Your task to perform on an android device: uninstall "Spotify: Music and Podcasts" Image 0: 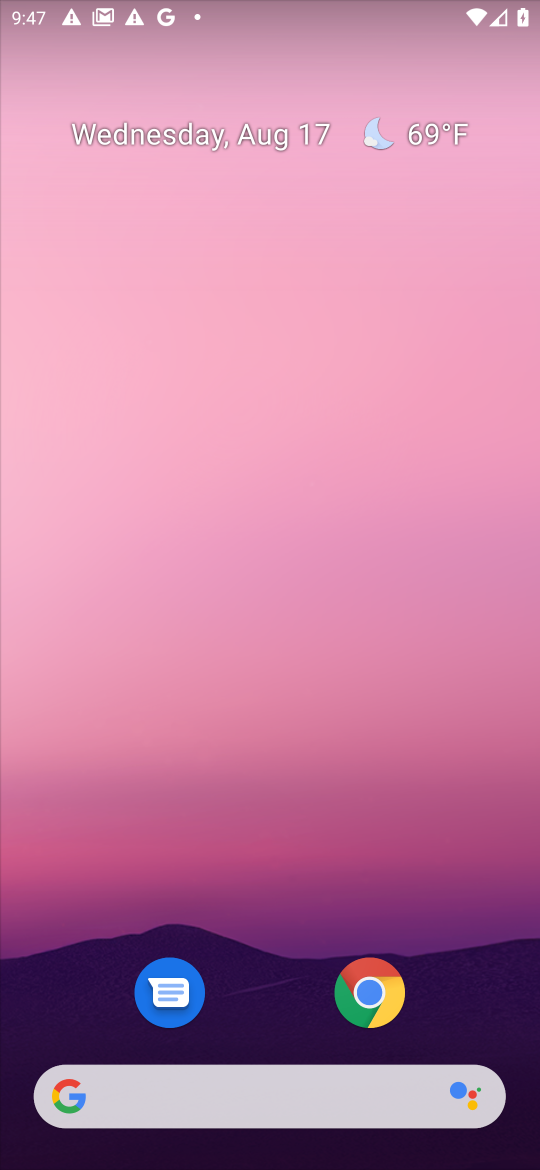
Step 0: drag from (499, 1026) to (263, 111)
Your task to perform on an android device: uninstall "Spotify: Music and Podcasts" Image 1: 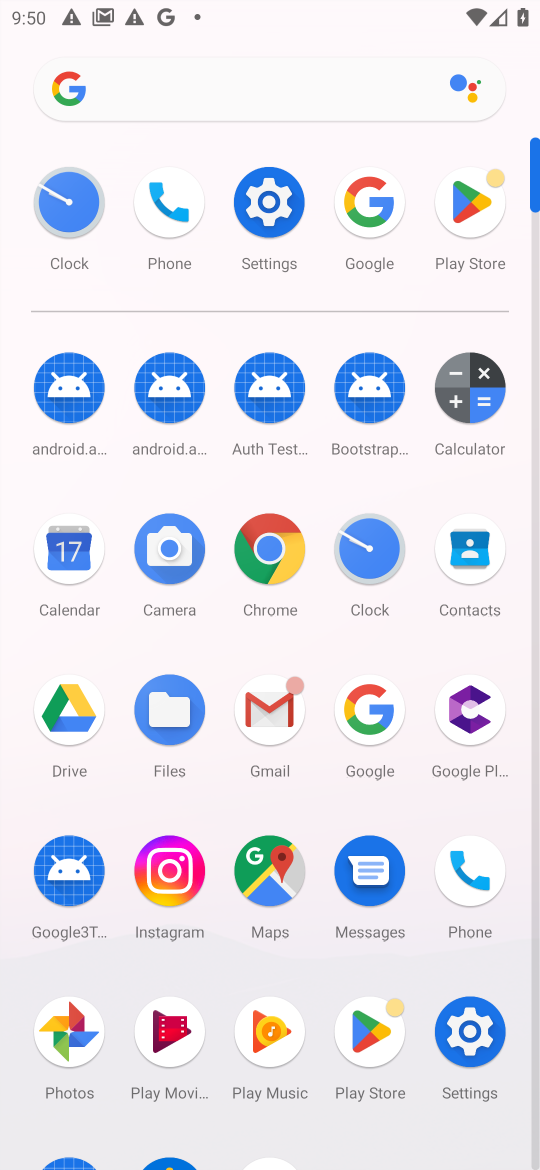
Step 1: click (365, 1031)
Your task to perform on an android device: uninstall "Spotify: Music and Podcasts" Image 2: 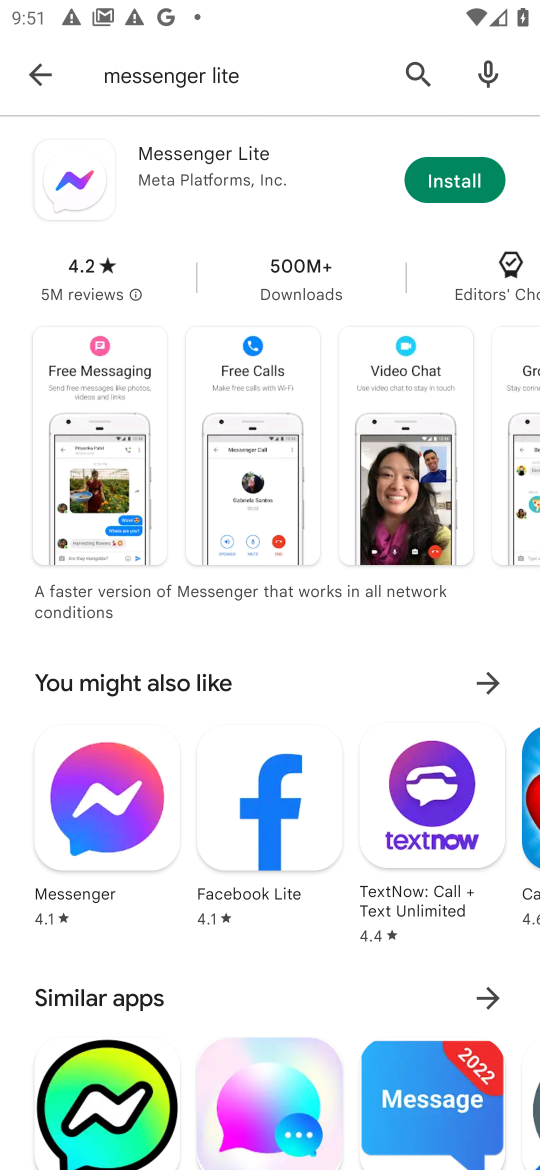
Step 2: press back button
Your task to perform on an android device: uninstall "Spotify: Music and Podcasts" Image 3: 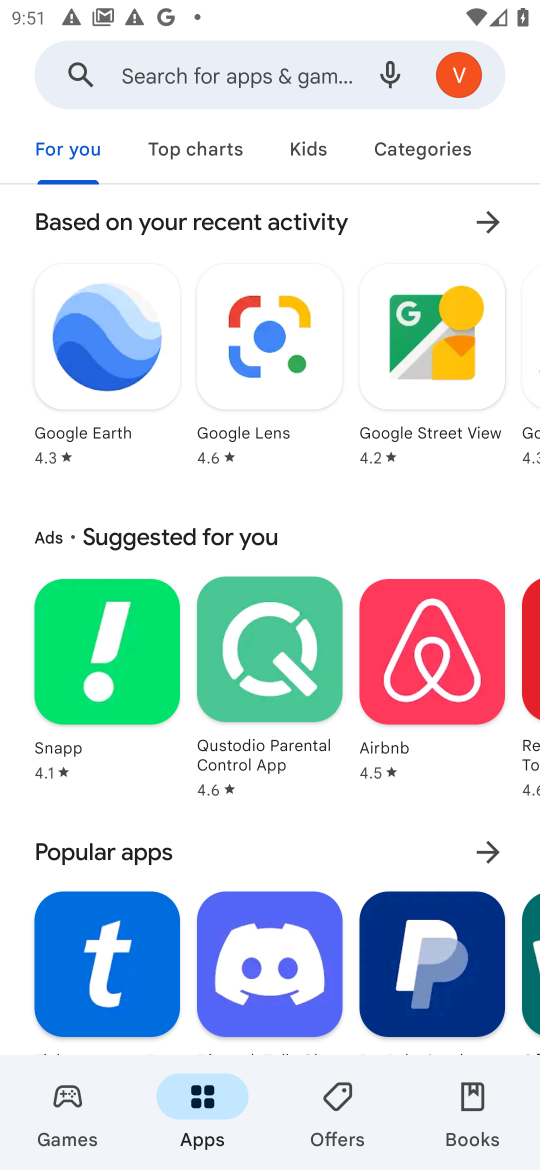
Step 3: click (211, 84)
Your task to perform on an android device: uninstall "Spotify: Music and Podcasts" Image 4: 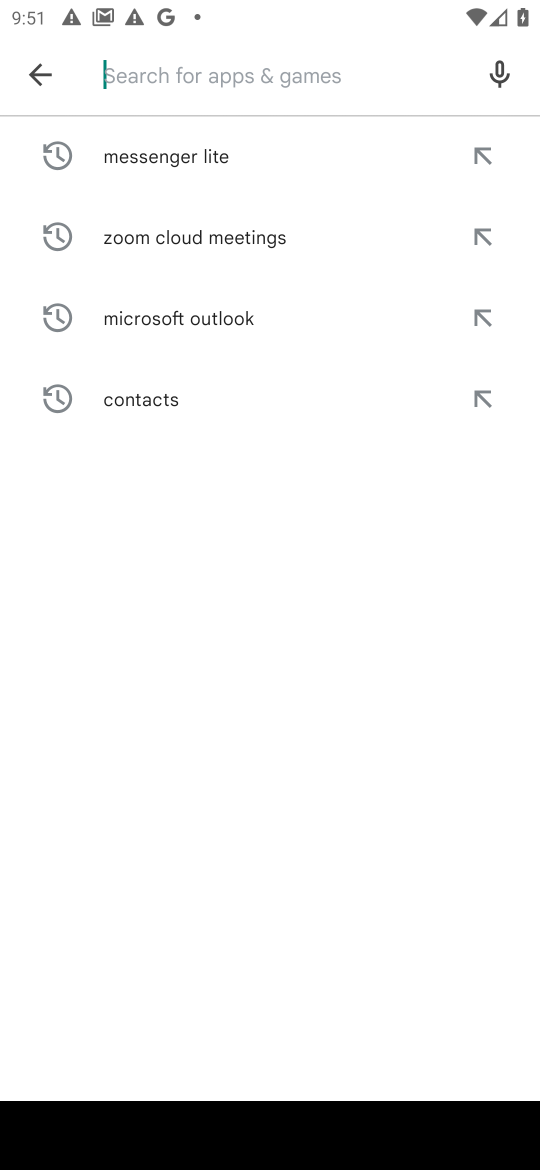
Step 4: type "Spotify: Music and Podcasts"
Your task to perform on an android device: uninstall "Spotify: Music and Podcasts" Image 5: 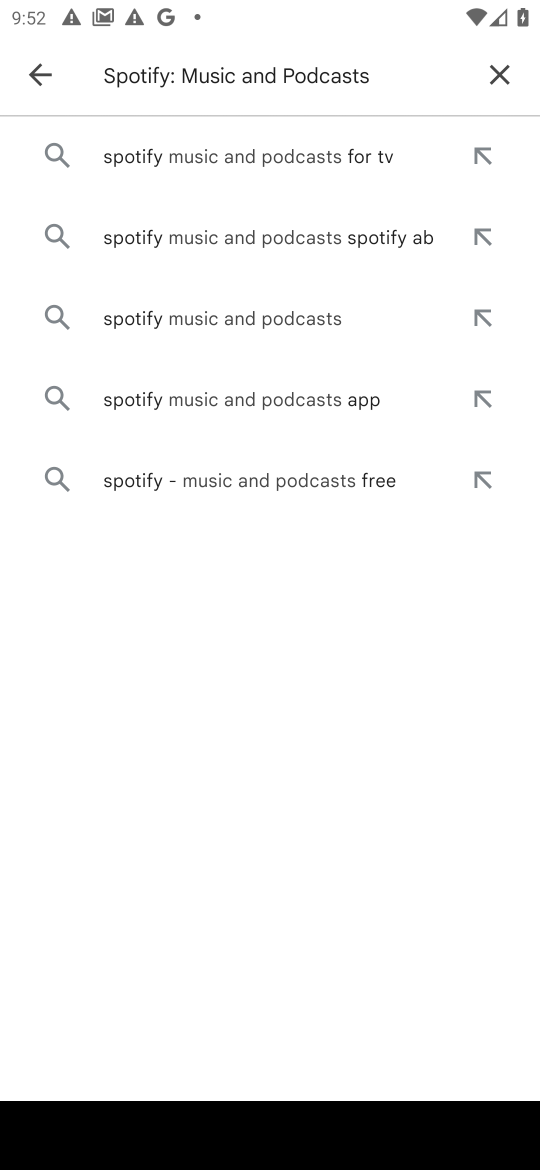
Step 5: click (240, 327)
Your task to perform on an android device: uninstall "Spotify: Music and Podcasts" Image 6: 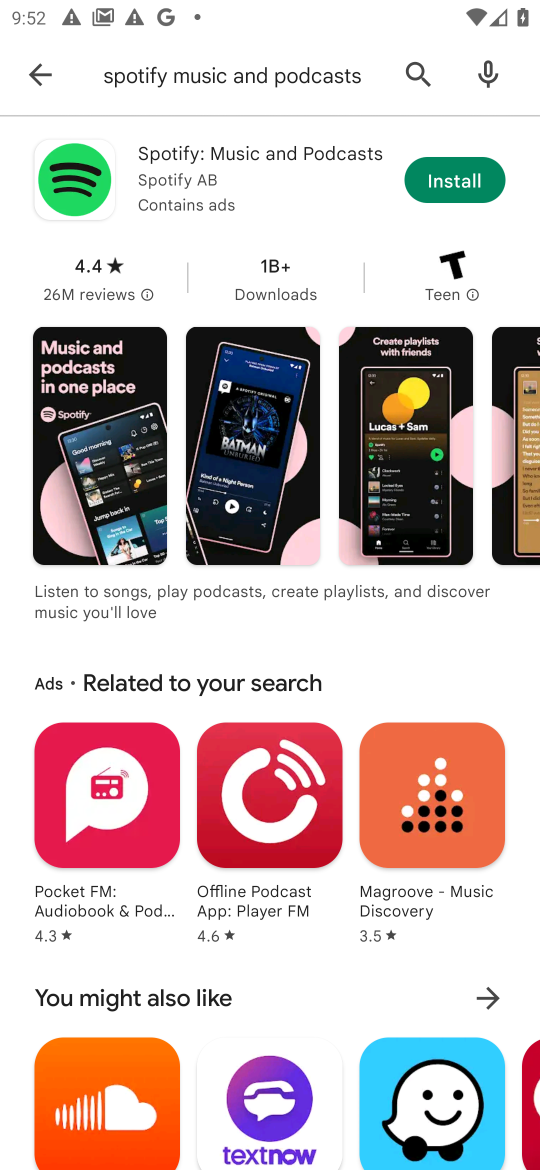
Step 6: task complete